Your task to perform on an android device: change text size in settings app Image 0: 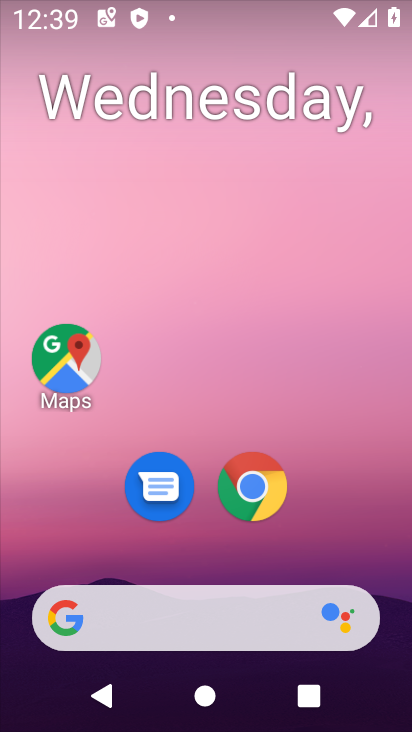
Step 0: drag from (353, 535) to (340, 164)
Your task to perform on an android device: change text size in settings app Image 1: 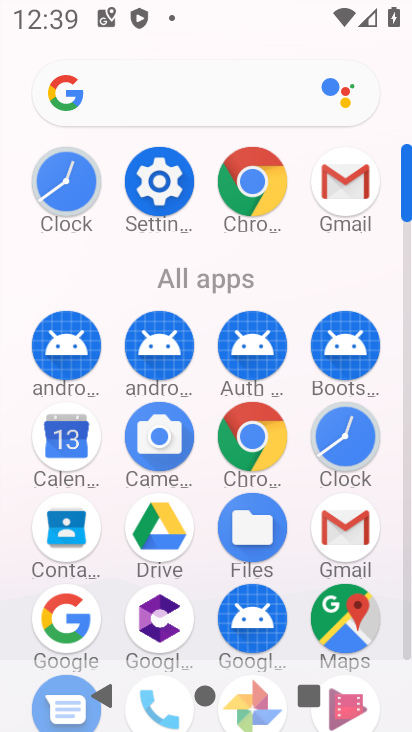
Step 1: click (169, 181)
Your task to perform on an android device: change text size in settings app Image 2: 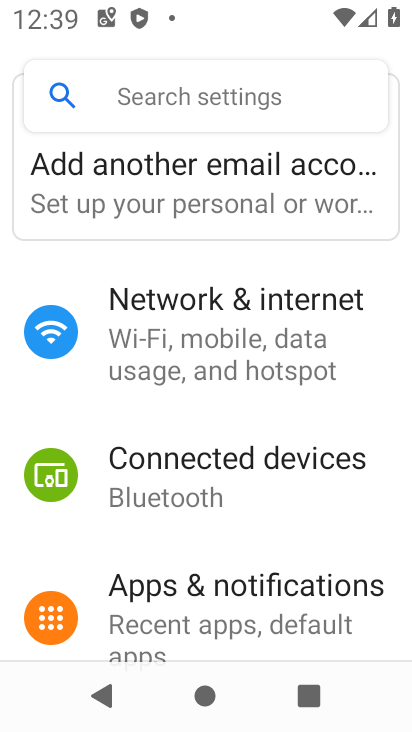
Step 2: drag from (366, 422) to (372, 287)
Your task to perform on an android device: change text size in settings app Image 3: 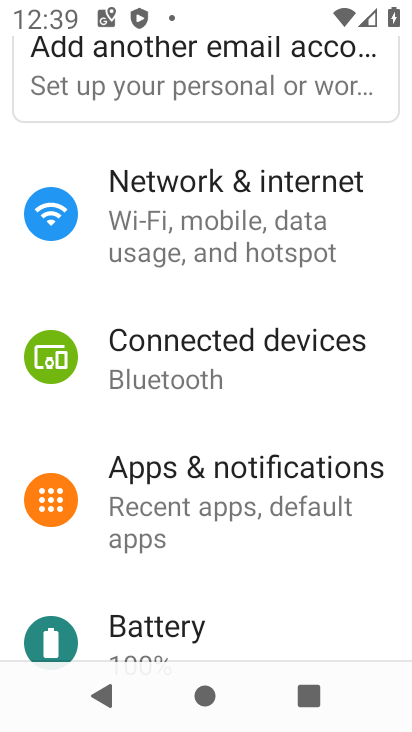
Step 3: drag from (372, 434) to (371, 156)
Your task to perform on an android device: change text size in settings app Image 4: 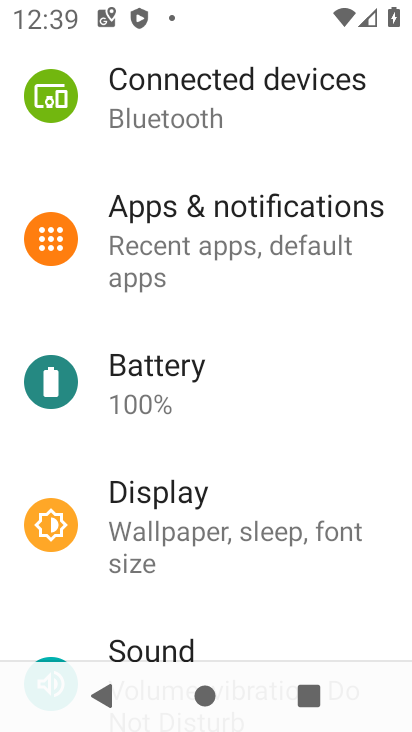
Step 4: drag from (368, 433) to (365, 233)
Your task to perform on an android device: change text size in settings app Image 5: 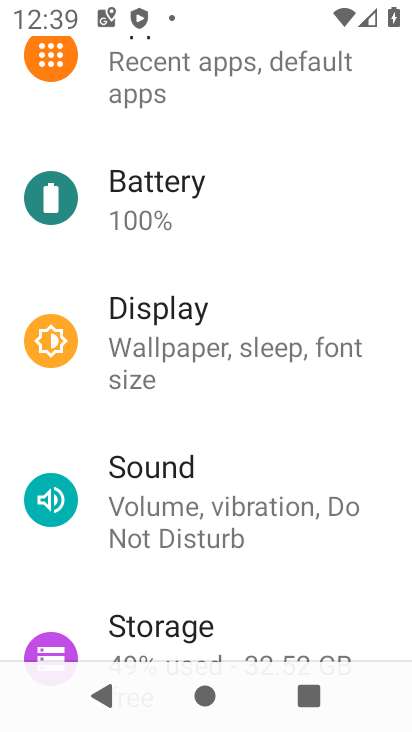
Step 5: drag from (364, 421) to (361, 136)
Your task to perform on an android device: change text size in settings app Image 6: 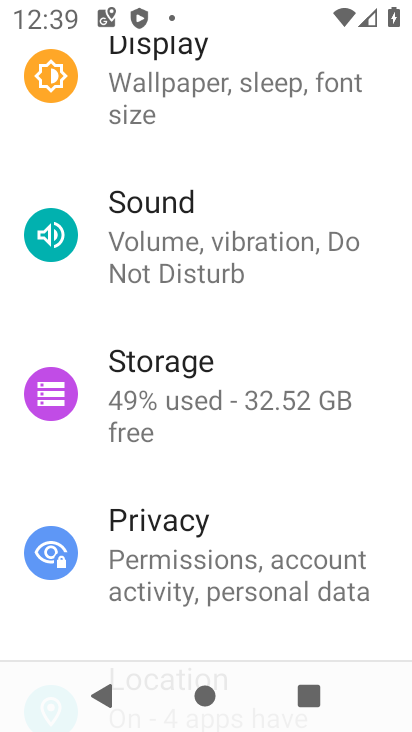
Step 6: drag from (339, 484) to (338, 263)
Your task to perform on an android device: change text size in settings app Image 7: 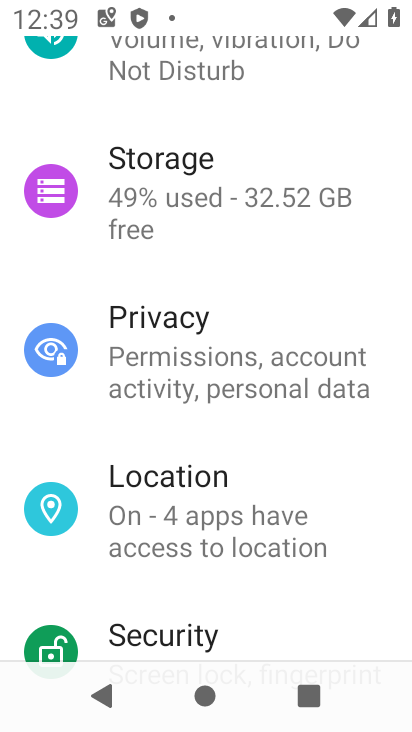
Step 7: drag from (353, 494) to (367, 311)
Your task to perform on an android device: change text size in settings app Image 8: 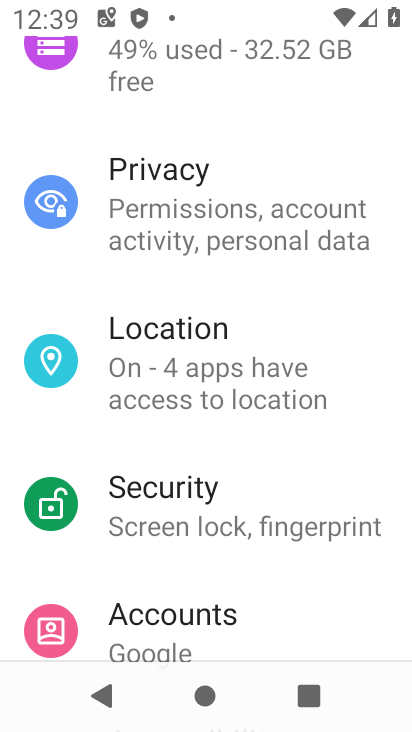
Step 8: drag from (364, 444) to (362, 290)
Your task to perform on an android device: change text size in settings app Image 9: 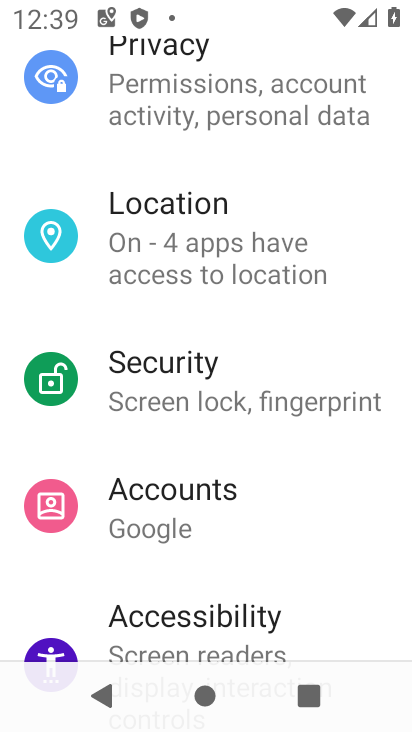
Step 9: drag from (358, 220) to (352, 364)
Your task to perform on an android device: change text size in settings app Image 10: 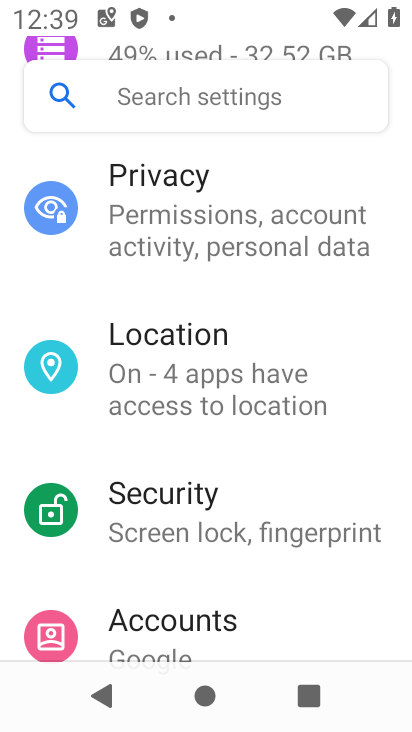
Step 10: drag from (383, 212) to (382, 399)
Your task to perform on an android device: change text size in settings app Image 11: 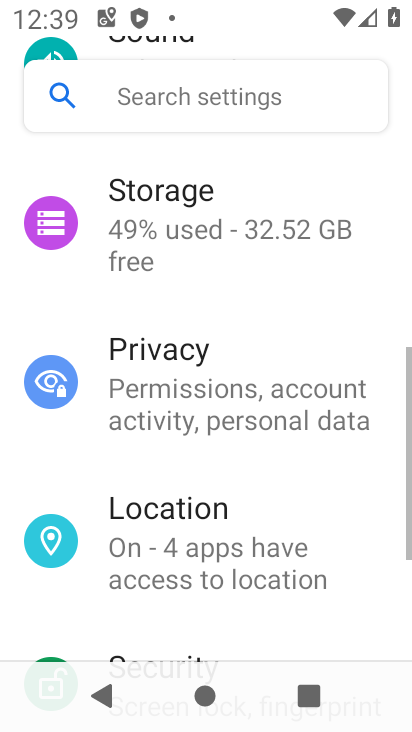
Step 11: drag from (374, 263) to (372, 461)
Your task to perform on an android device: change text size in settings app Image 12: 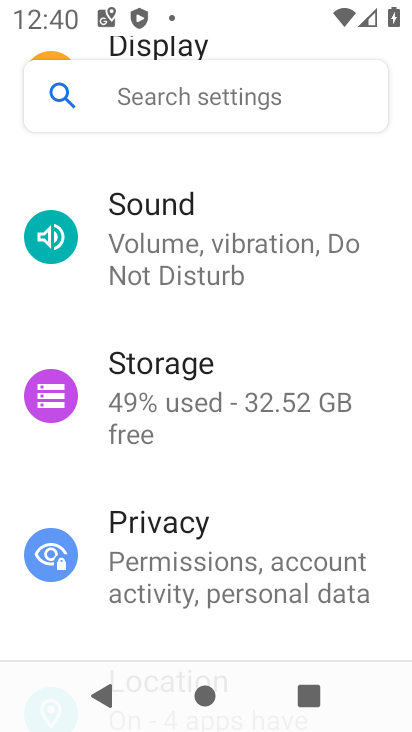
Step 12: drag from (375, 212) to (375, 433)
Your task to perform on an android device: change text size in settings app Image 13: 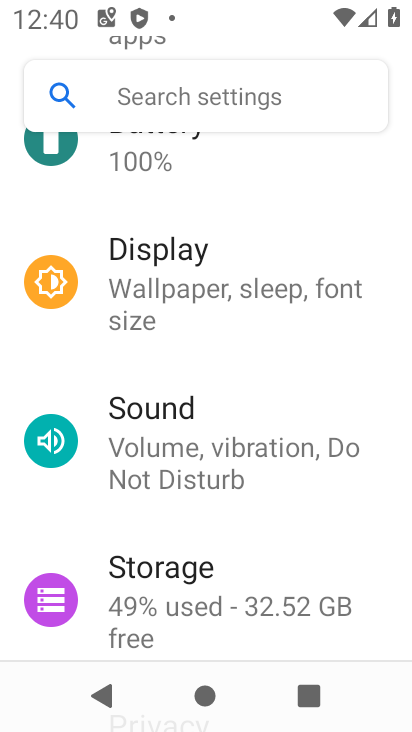
Step 13: click (290, 294)
Your task to perform on an android device: change text size in settings app Image 14: 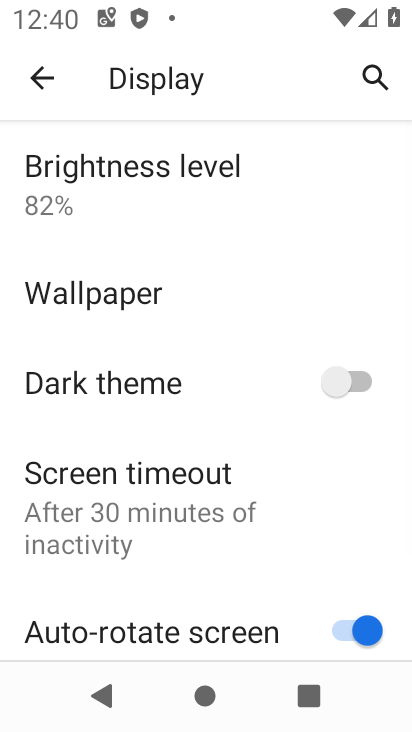
Step 14: drag from (267, 392) to (265, 229)
Your task to perform on an android device: change text size in settings app Image 15: 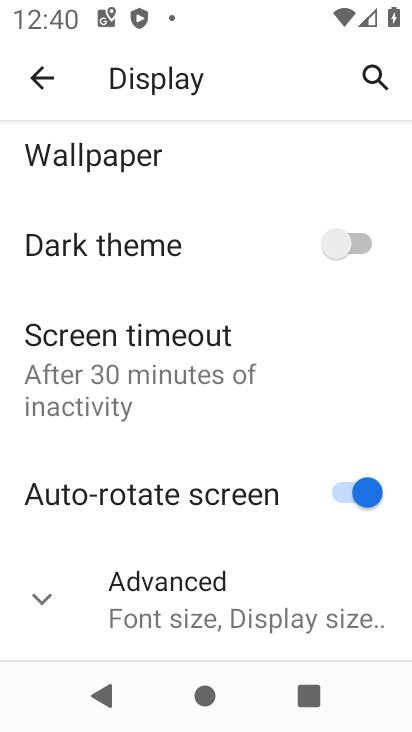
Step 15: click (239, 600)
Your task to perform on an android device: change text size in settings app Image 16: 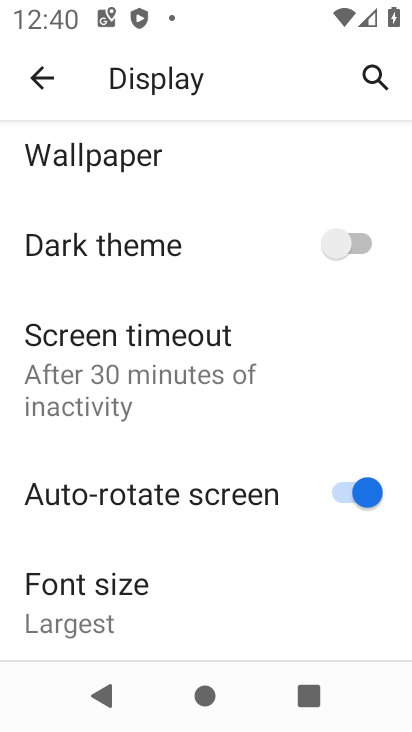
Step 16: drag from (266, 544) to (274, 356)
Your task to perform on an android device: change text size in settings app Image 17: 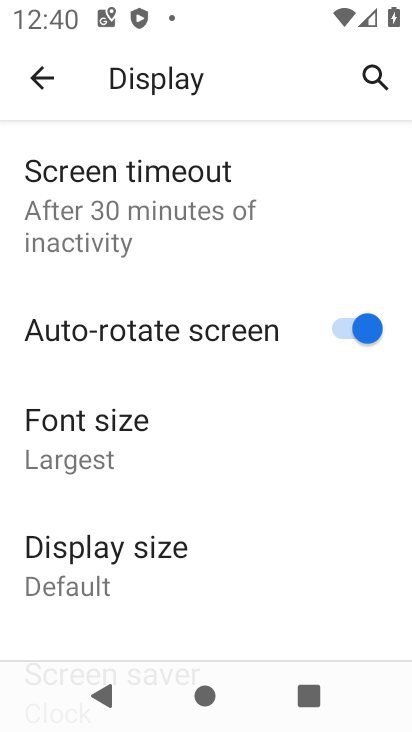
Step 17: click (182, 461)
Your task to perform on an android device: change text size in settings app Image 18: 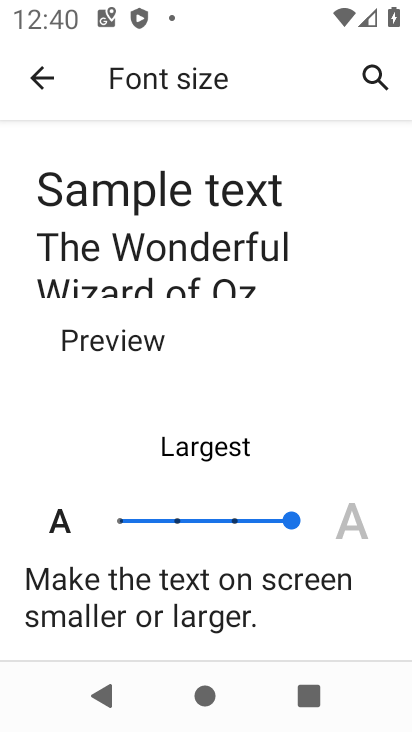
Step 18: click (236, 516)
Your task to perform on an android device: change text size in settings app Image 19: 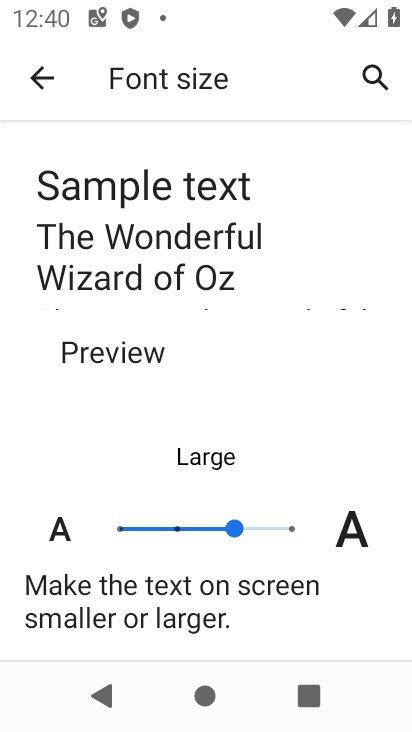
Step 19: task complete